Your task to perform on an android device: Show me popular games on the Play Store Image 0: 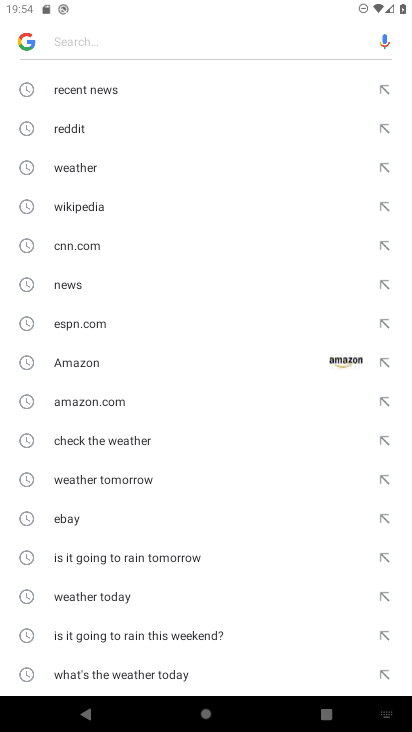
Step 0: press home button
Your task to perform on an android device: Show me popular games on the Play Store Image 1: 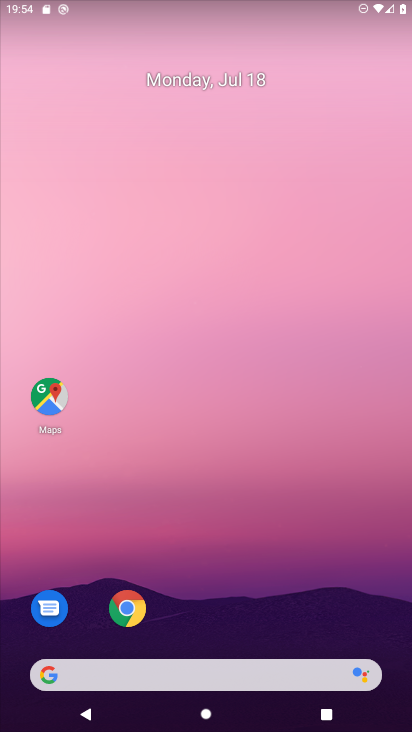
Step 1: drag from (221, 624) to (233, 128)
Your task to perform on an android device: Show me popular games on the Play Store Image 2: 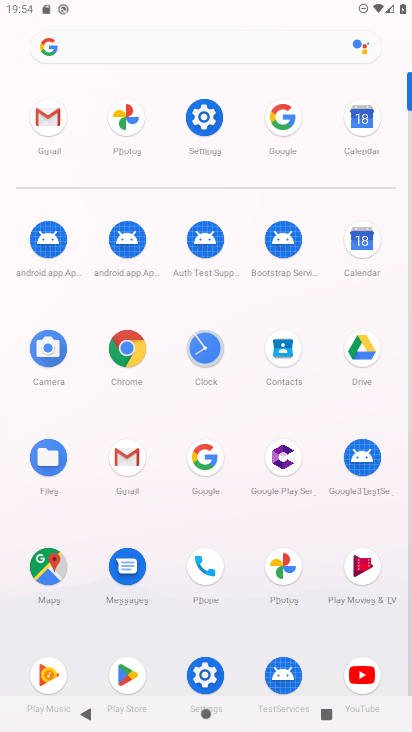
Step 2: click (125, 674)
Your task to perform on an android device: Show me popular games on the Play Store Image 3: 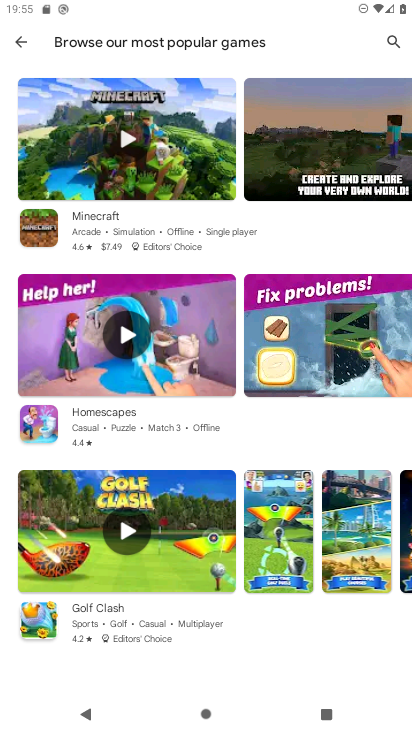
Step 3: task complete